Your task to perform on an android device: turn on bluetooth scan Image 0: 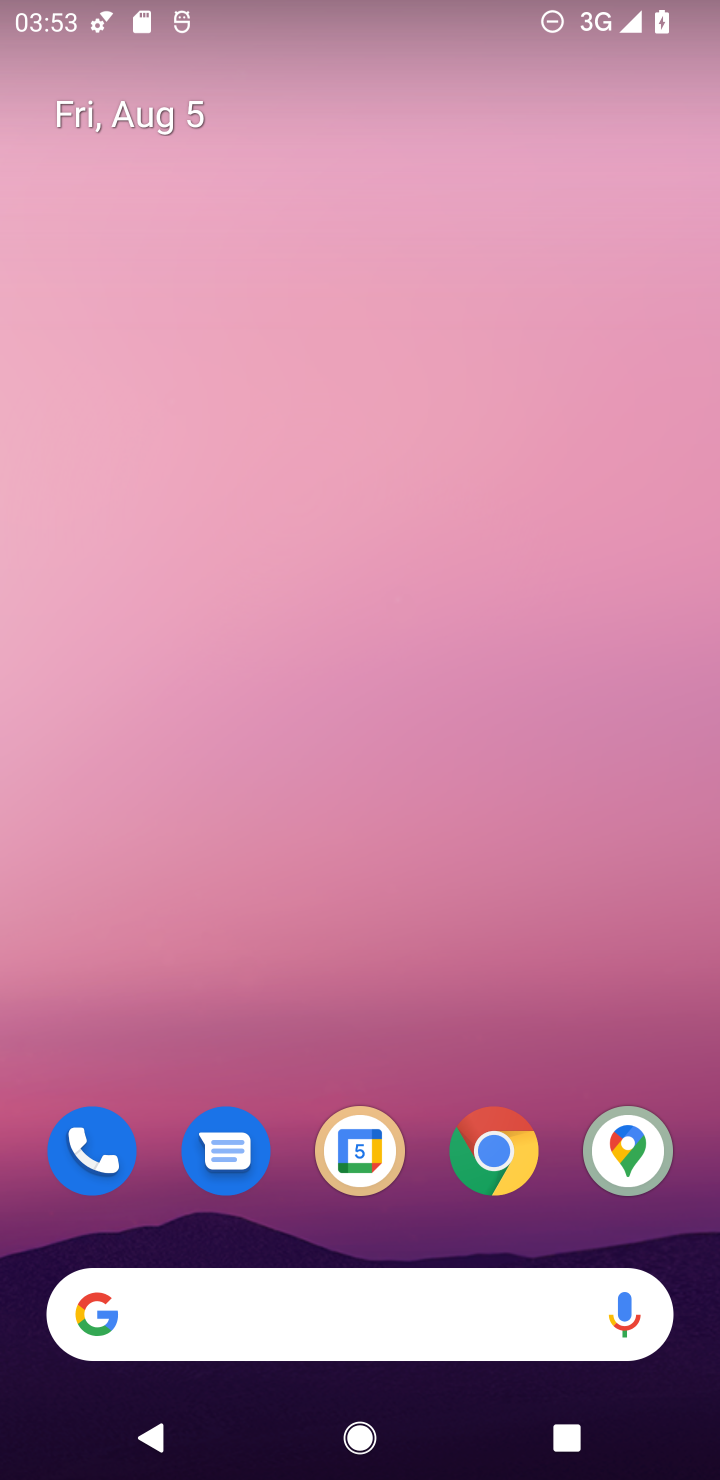
Step 0: drag from (577, 995) to (357, 237)
Your task to perform on an android device: turn on bluetooth scan Image 1: 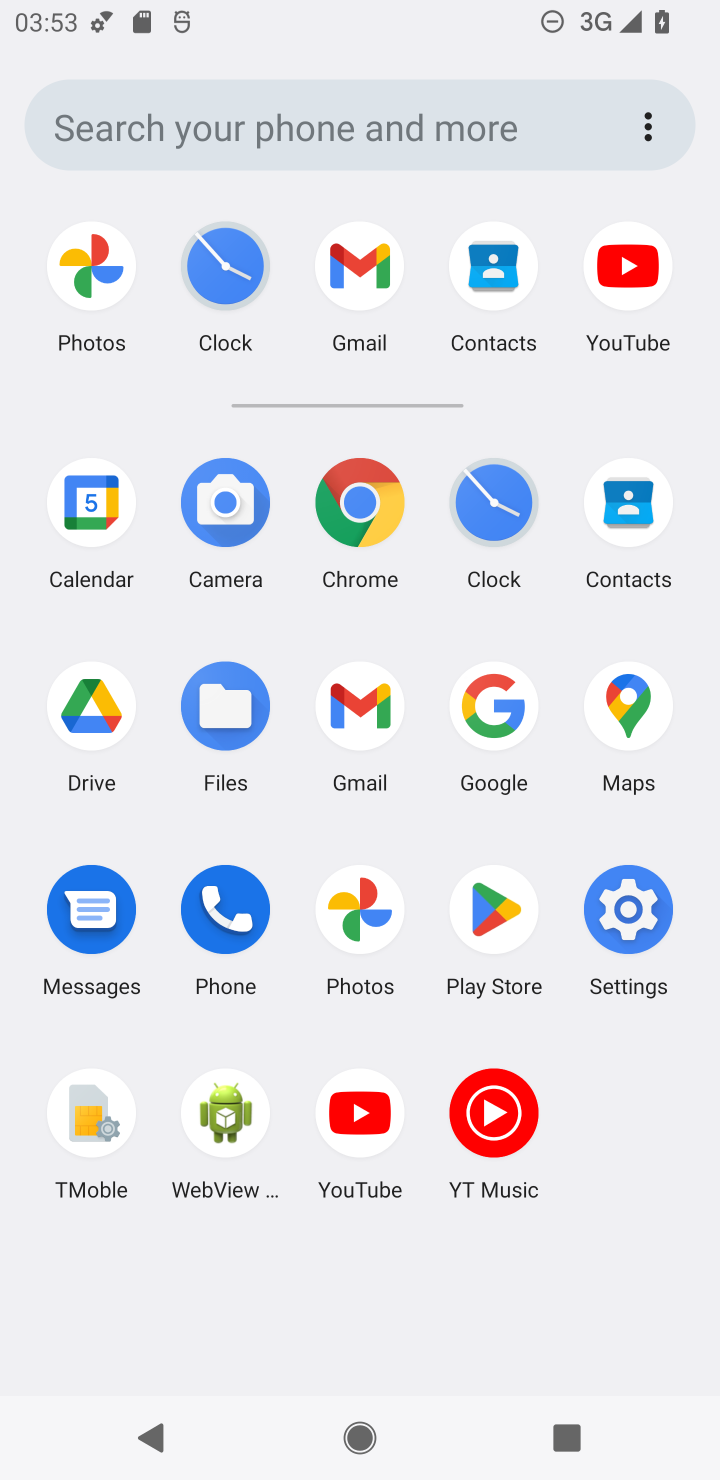
Step 1: click (640, 876)
Your task to perform on an android device: turn on bluetooth scan Image 2: 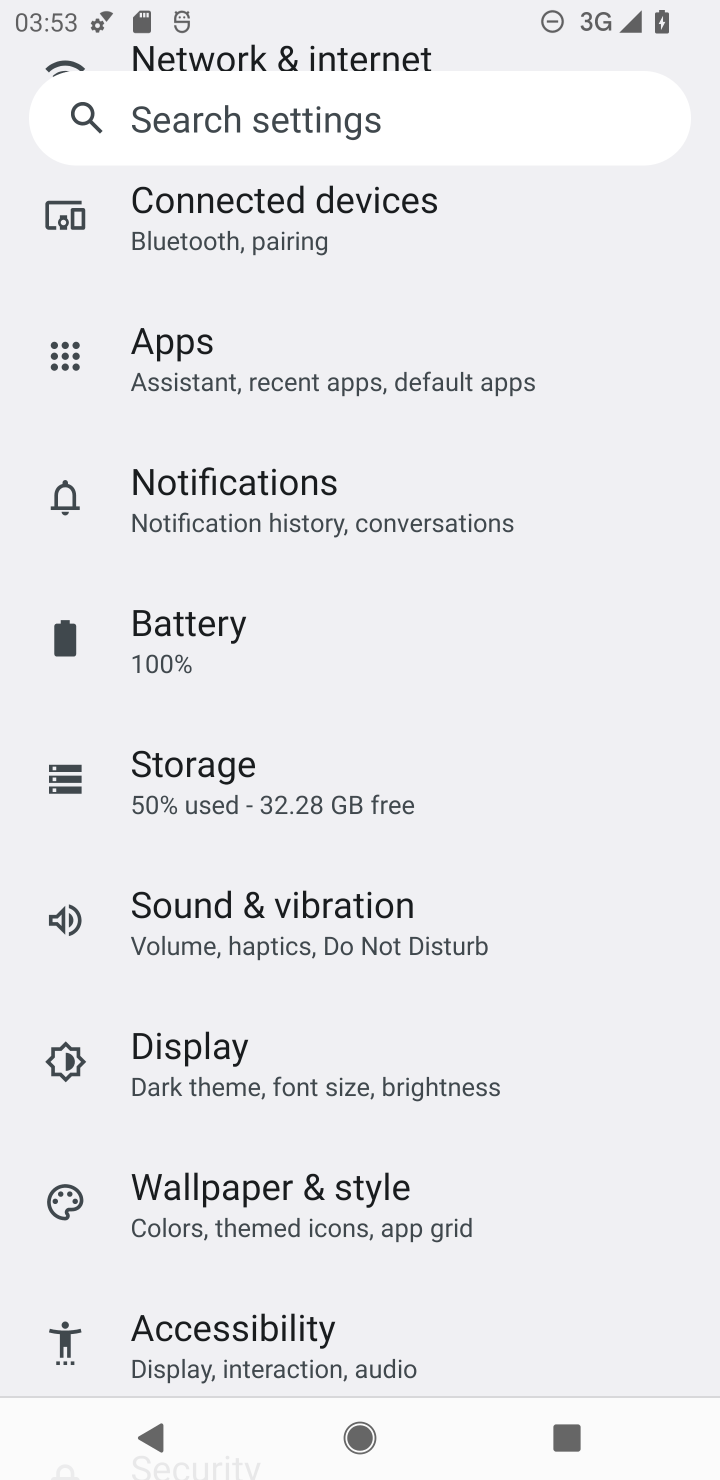
Step 2: drag from (254, 1103) to (131, 310)
Your task to perform on an android device: turn on bluetooth scan Image 3: 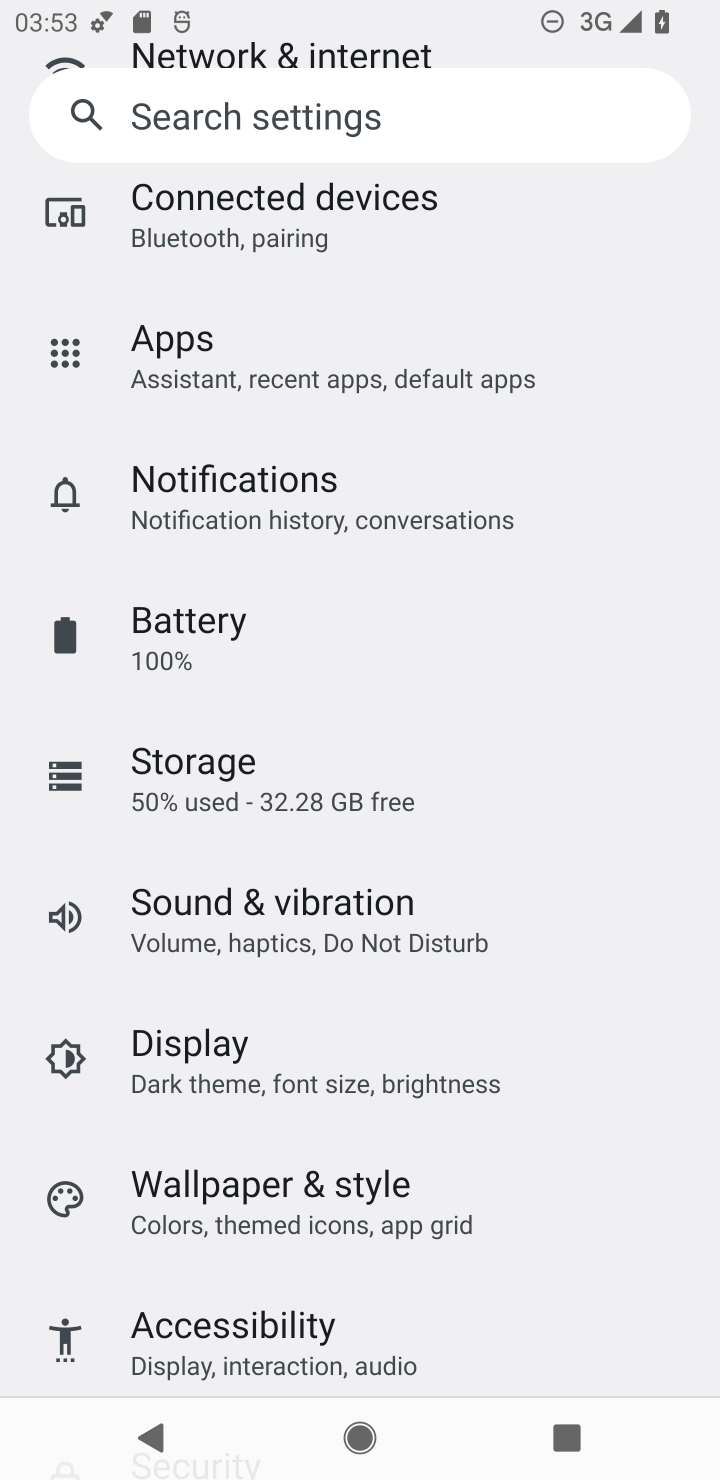
Step 3: drag from (289, 1052) to (289, 323)
Your task to perform on an android device: turn on bluetooth scan Image 4: 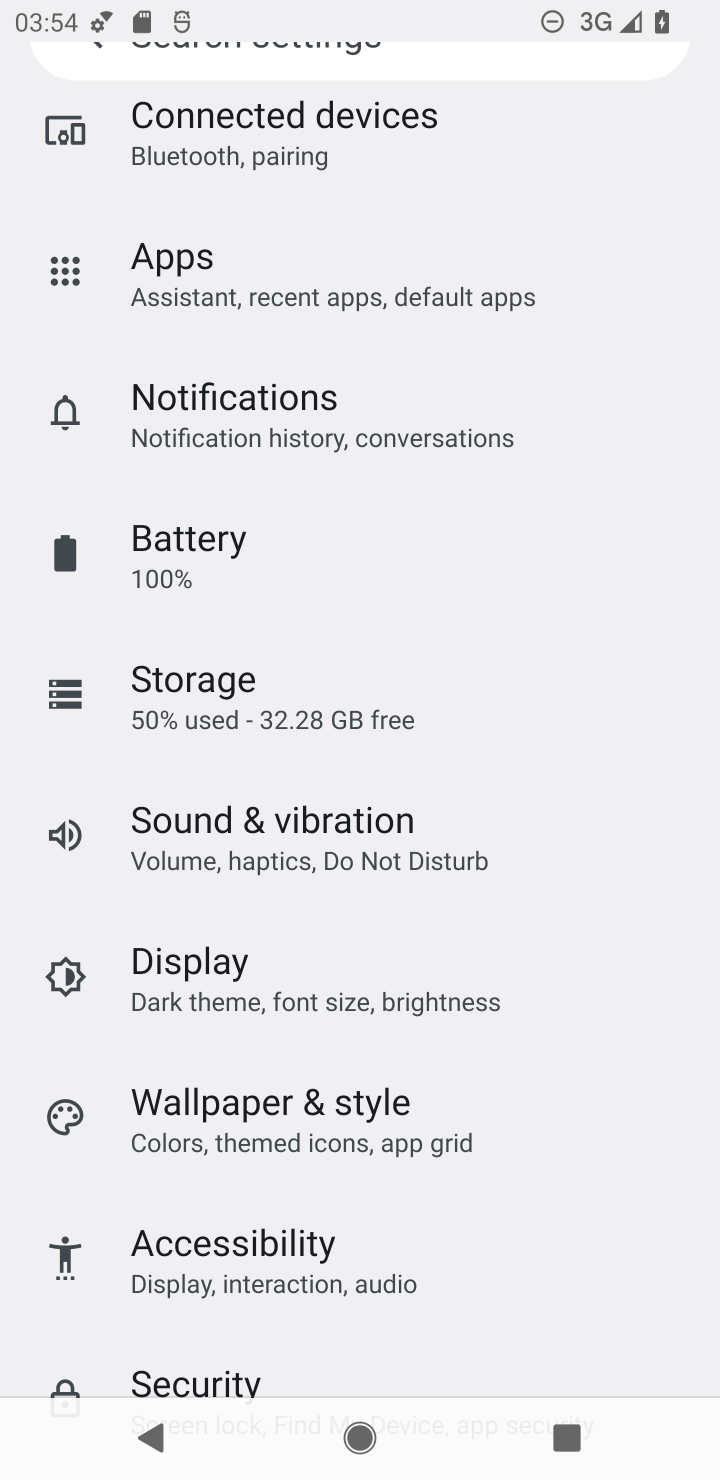
Step 4: drag from (178, 1130) to (180, 675)
Your task to perform on an android device: turn on bluetooth scan Image 5: 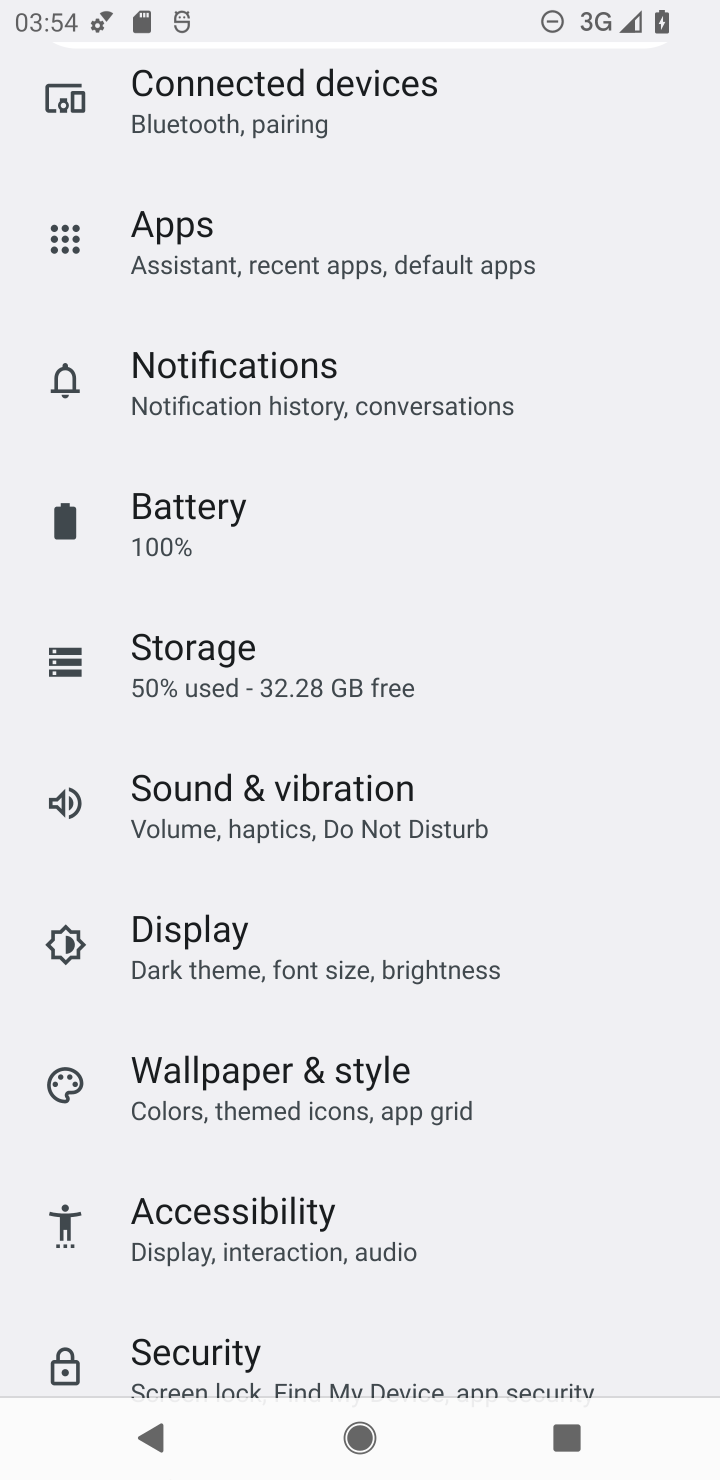
Step 5: drag from (214, 1017) to (207, 430)
Your task to perform on an android device: turn on bluetooth scan Image 6: 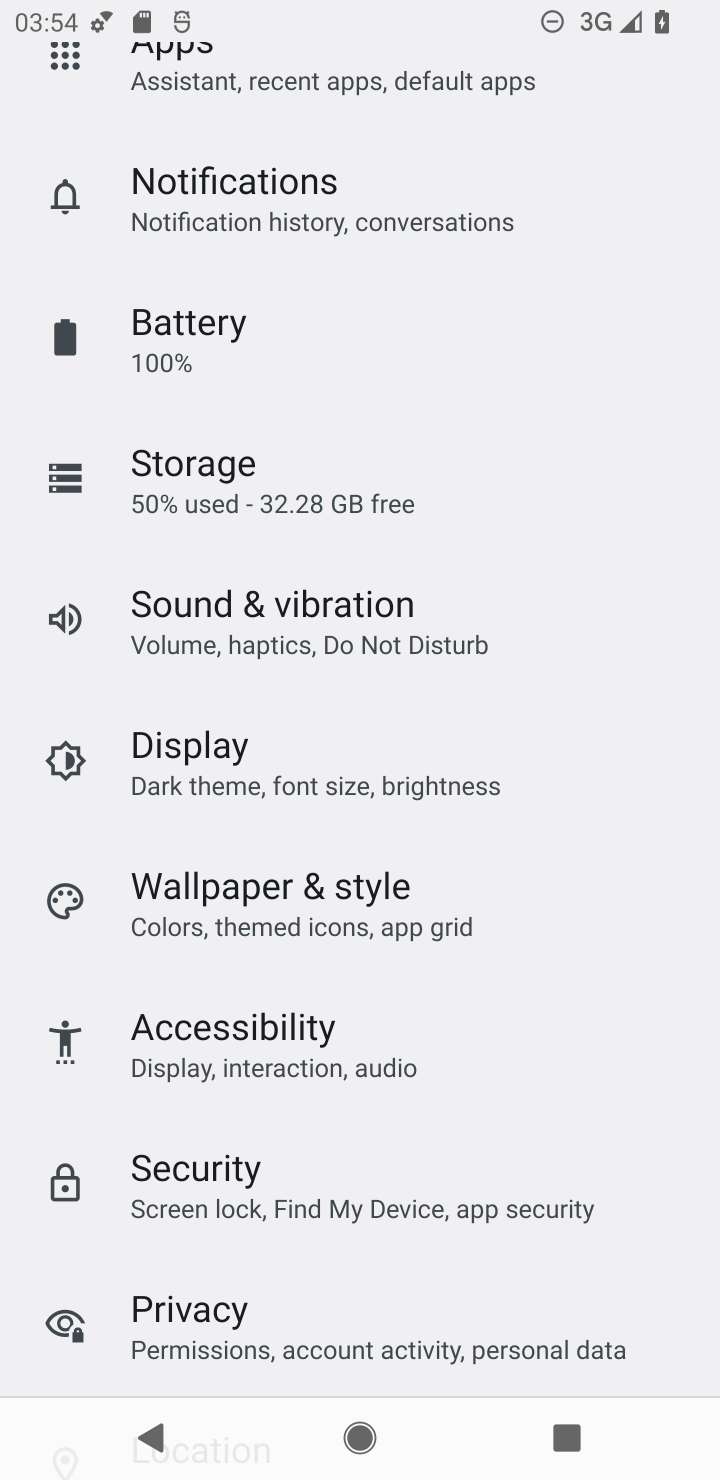
Step 6: drag from (179, 975) to (162, 66)
Your task to perform on an android device: turn on bluetooth scan Image 7: 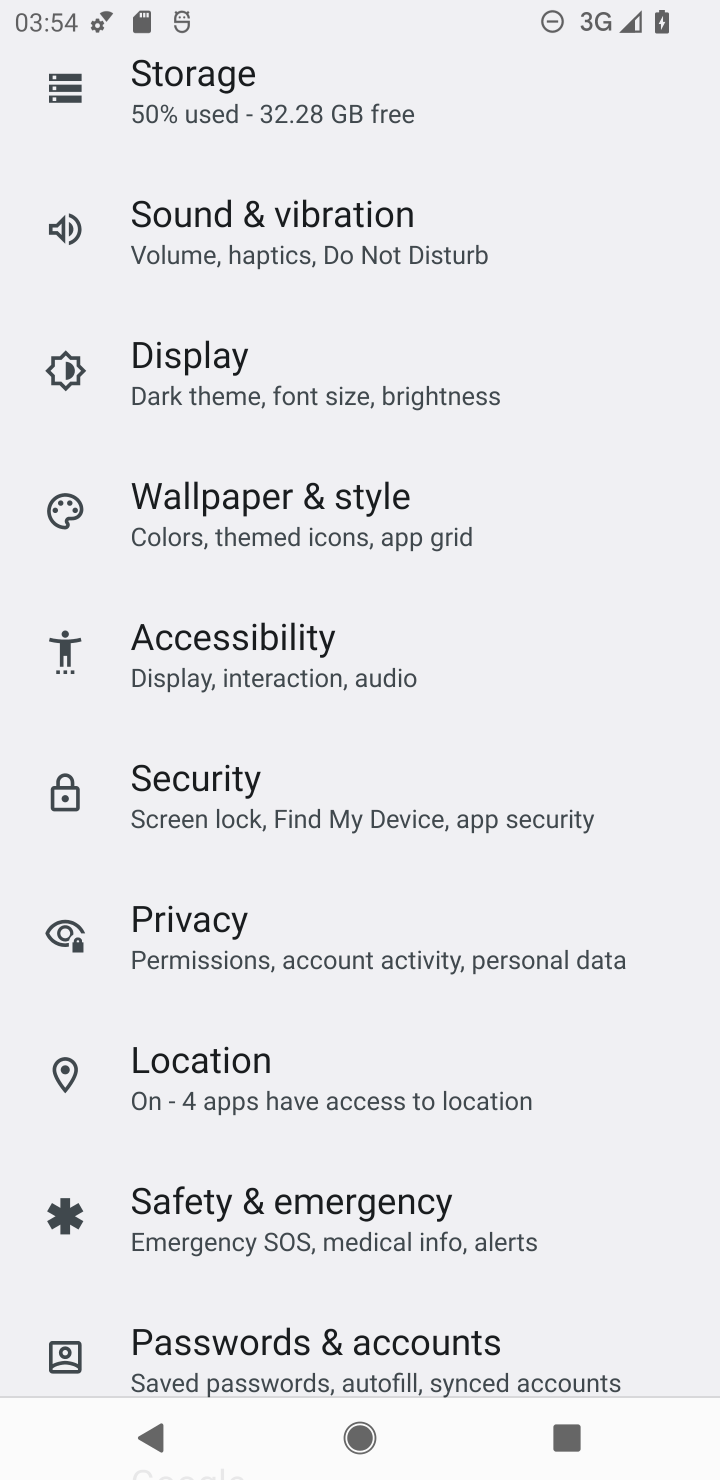
Step 7: click (306, 1085)
Your task to perform on an android device: turn on bluetooth scan Image 8: 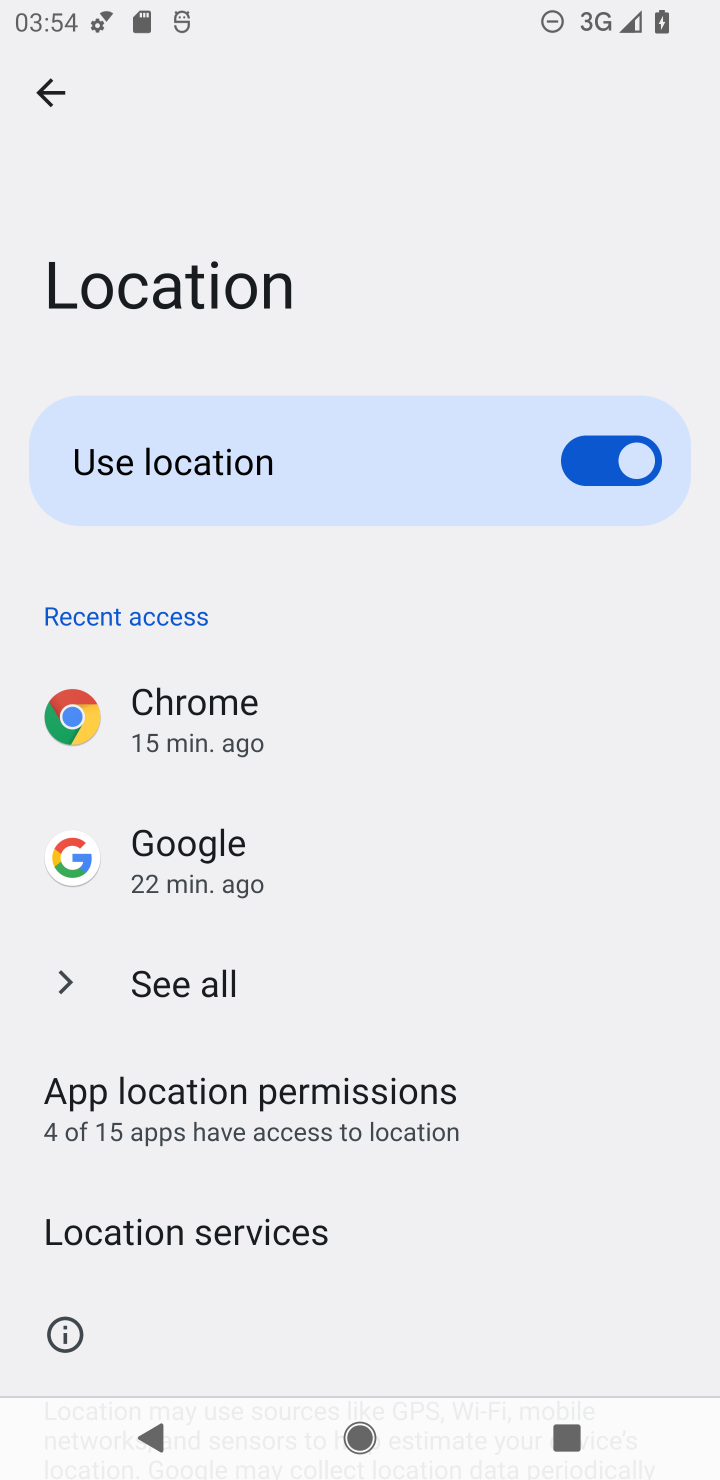
Step 8: click (326, 1233)
Your task to perform on an android device: turn on bluetooth scan Image 9: 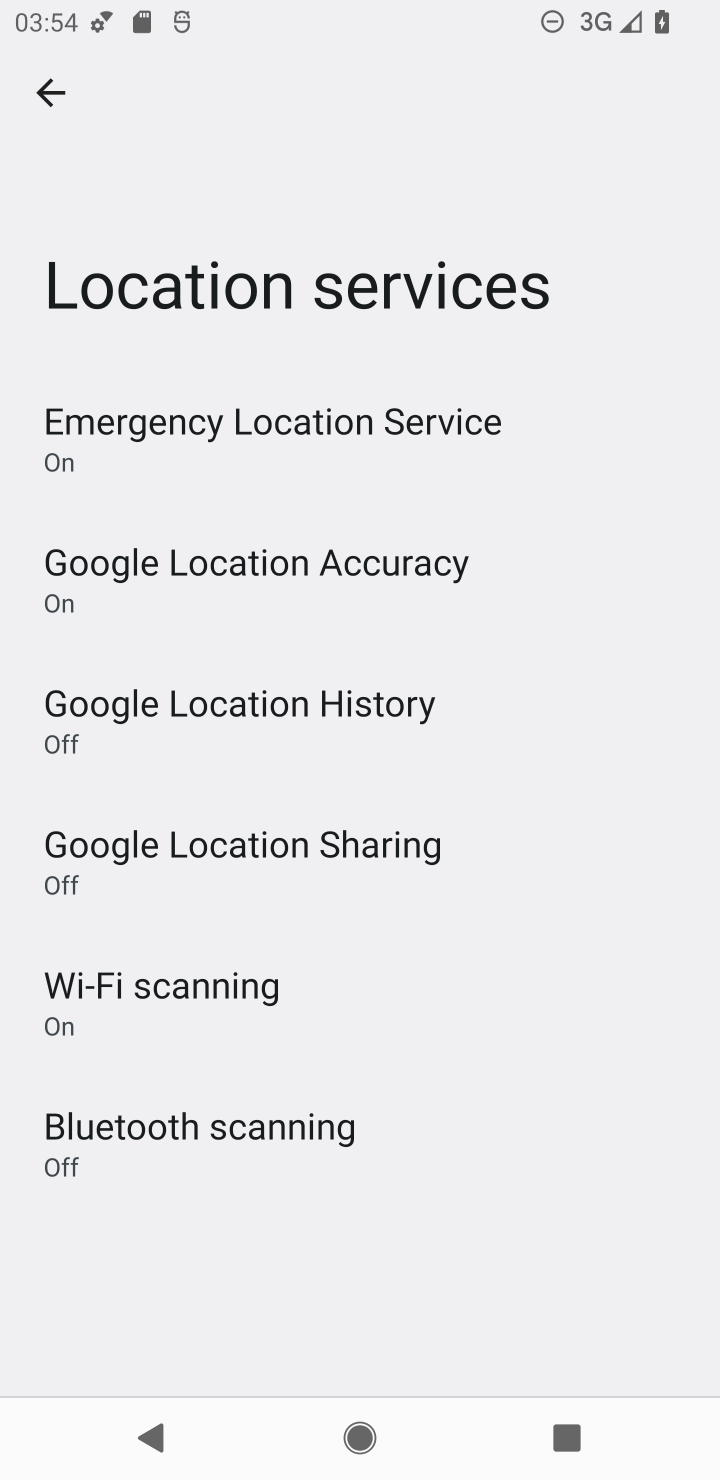
Step 9: click (234, 1107)
Your task to perform on an android device: turn on bluetooth scan Image 10: 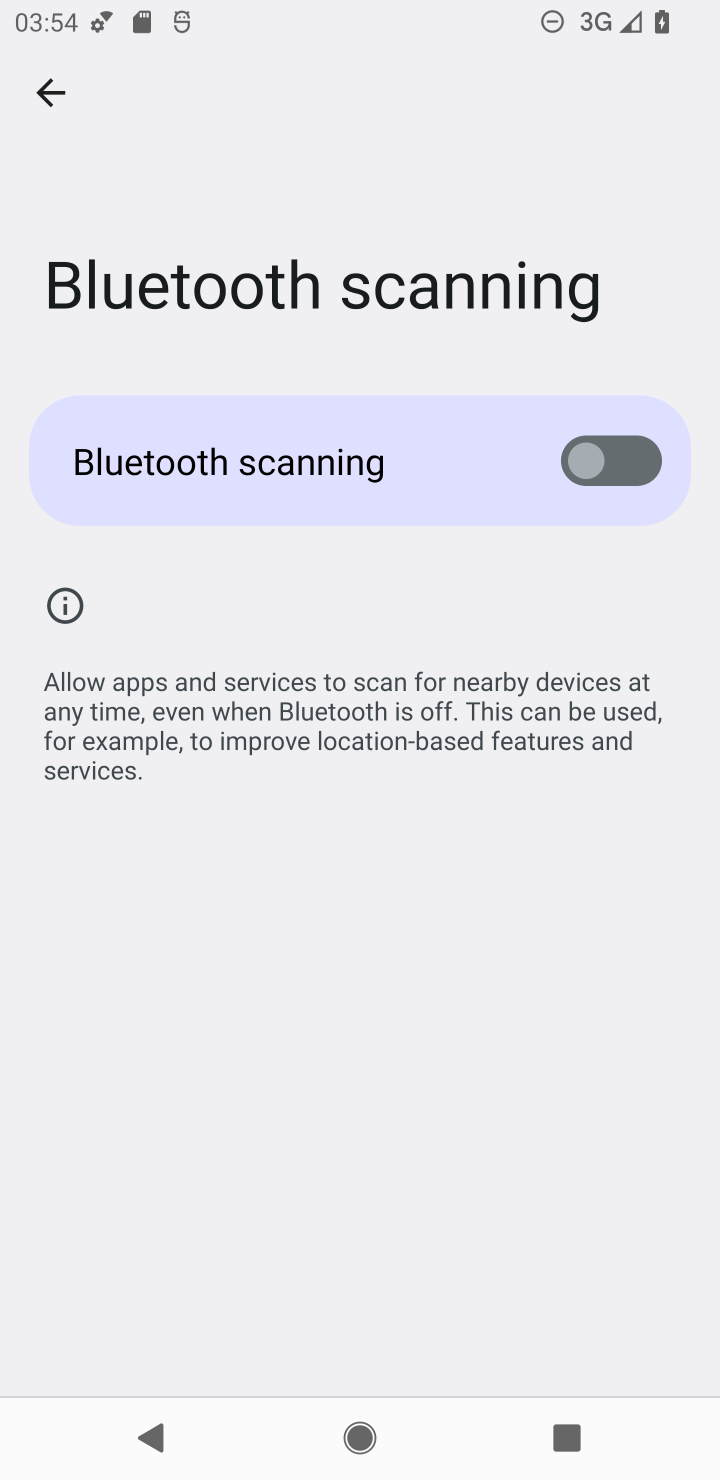
Step 10: click (600, 463)
Your task to perform on an android device: turn on bluetooth scan Image 11: 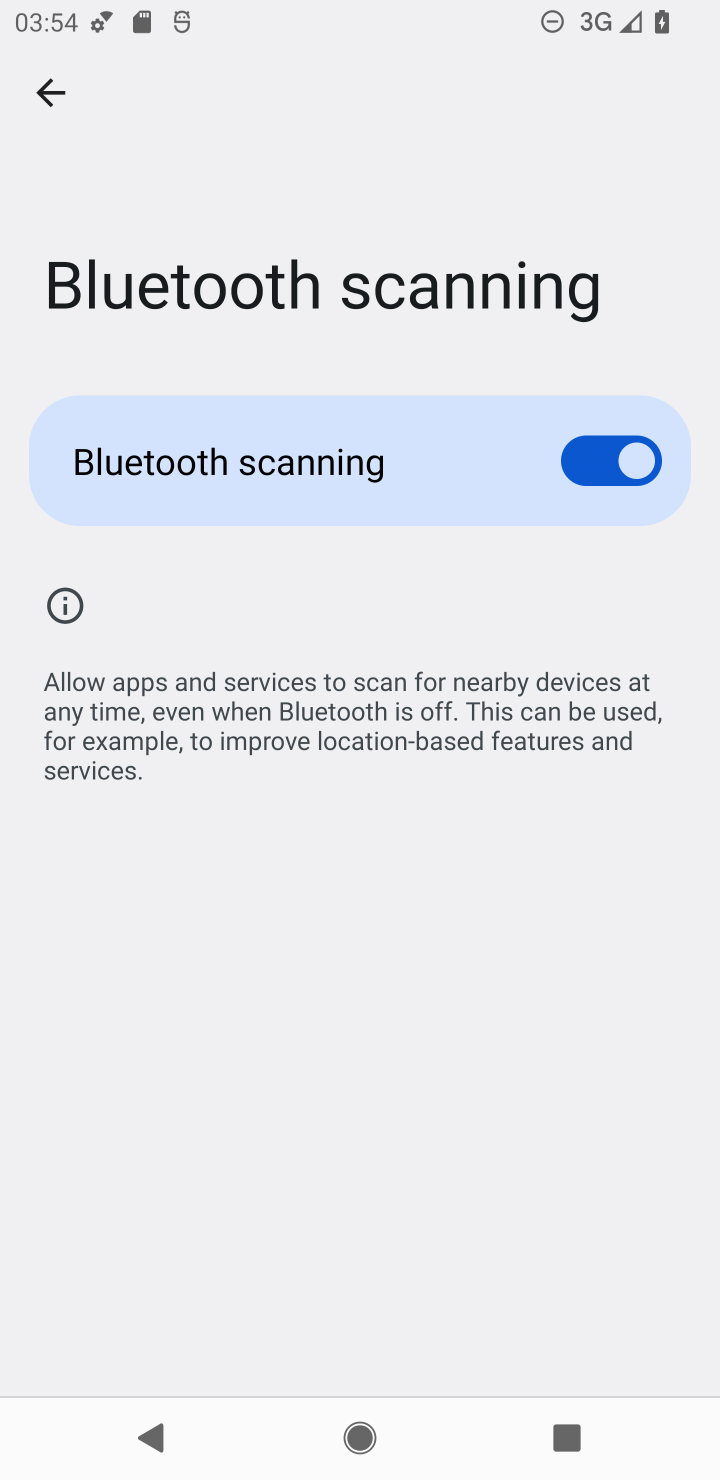
Step 11: task complete